Your task to perform on an android device: see sites visited before in the chrome app Image 0: 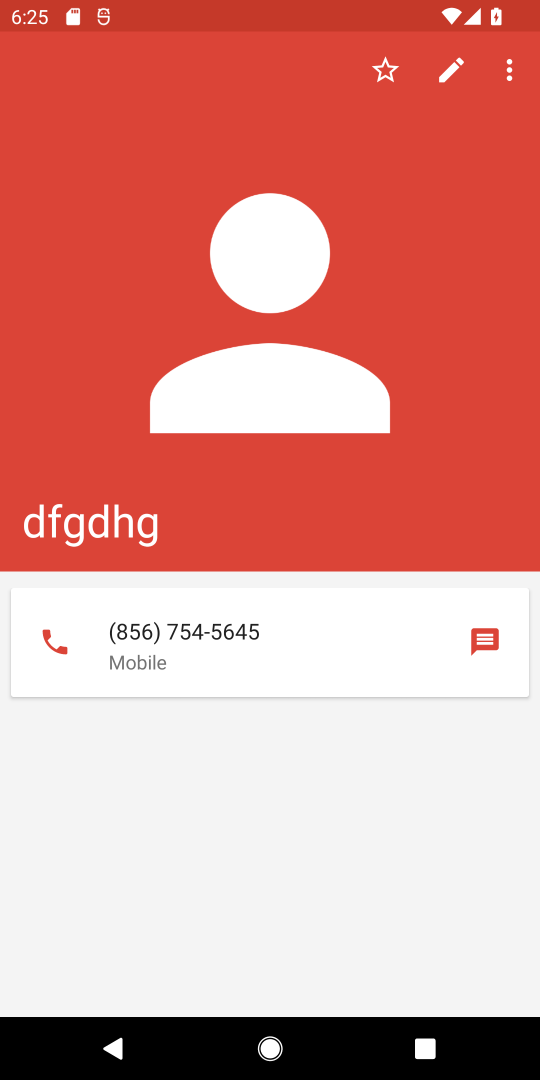
Step 0: press home button
Your task to perform on an android device: see sites visited before in the chrome app Image 1: 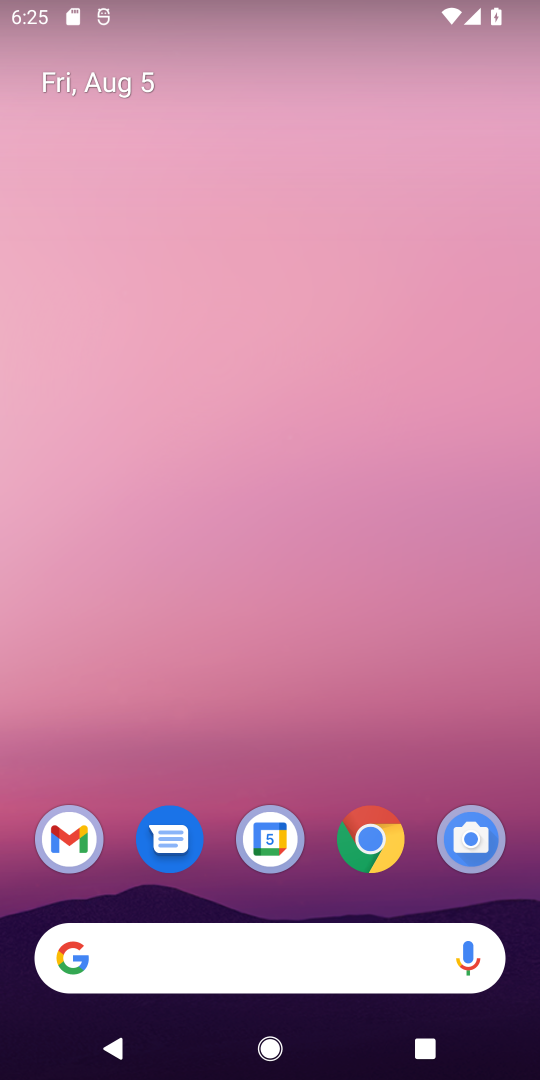
Step 1: click (359, 846)
Your task to perform on an android device: see sites visited before in the chrome app Image 2: 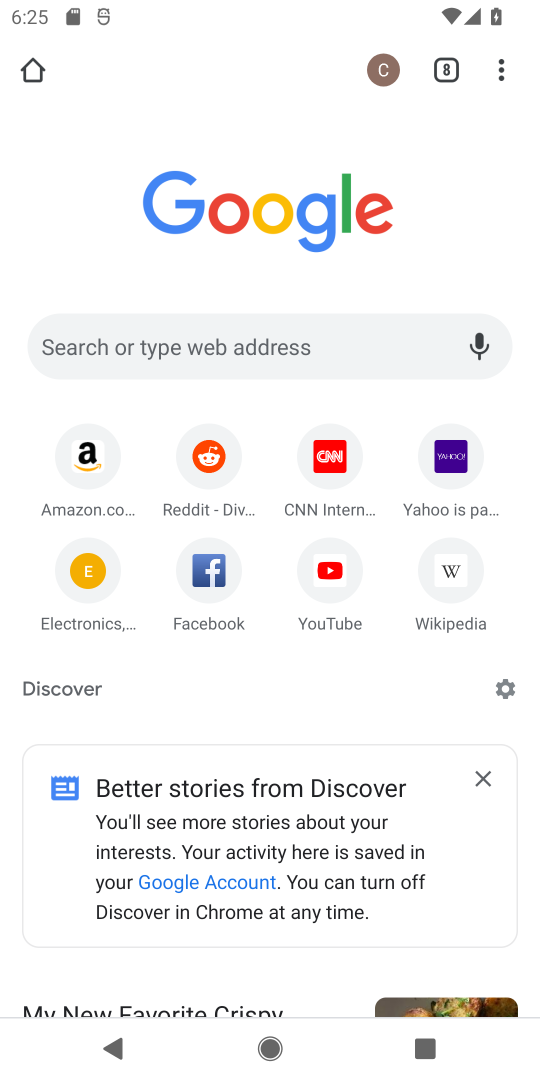
Step 2: task complete